Your task to perform on an android device: Add "jbl flip 4" to the cart on newegg.com Image 0: 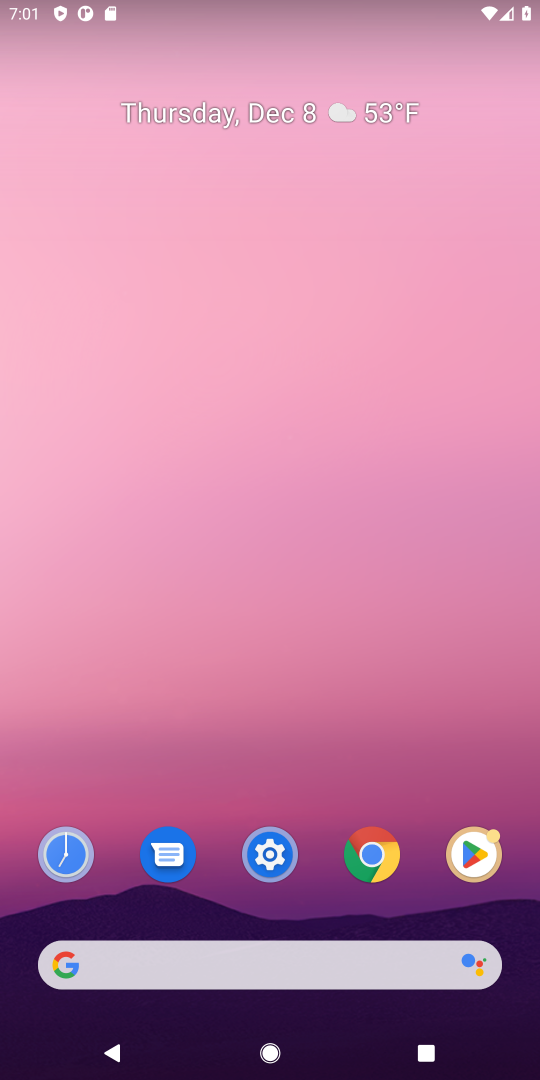
Step 0: press home button
Your task to perform on an android device: Add "jbl flip 4" to the cart on newegg.com Image 1: 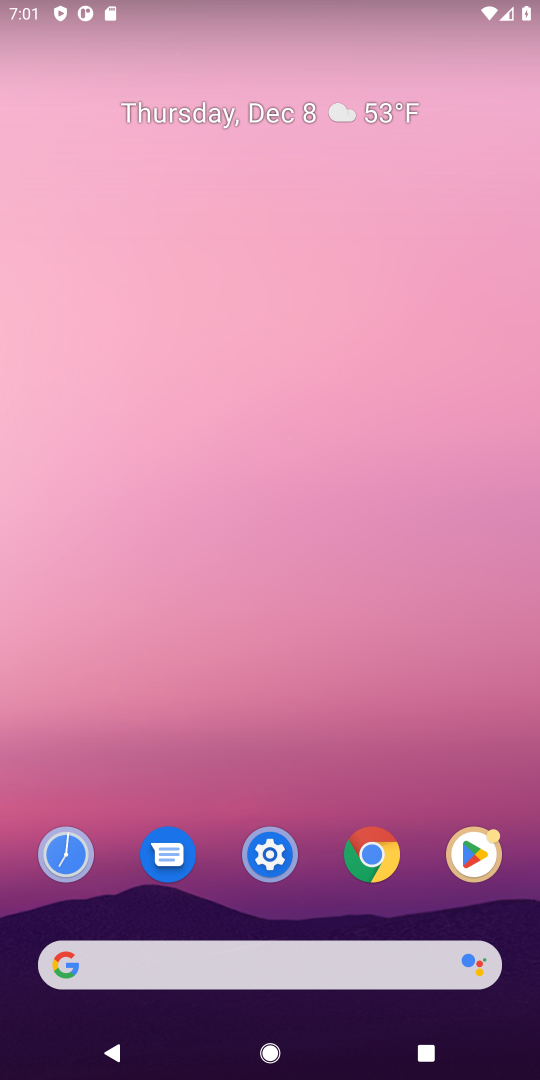
Step 1: click (98, 965)
Your task to perform on an android device: Add "jbl flip 4" to the cart on newegg.com Image 2: 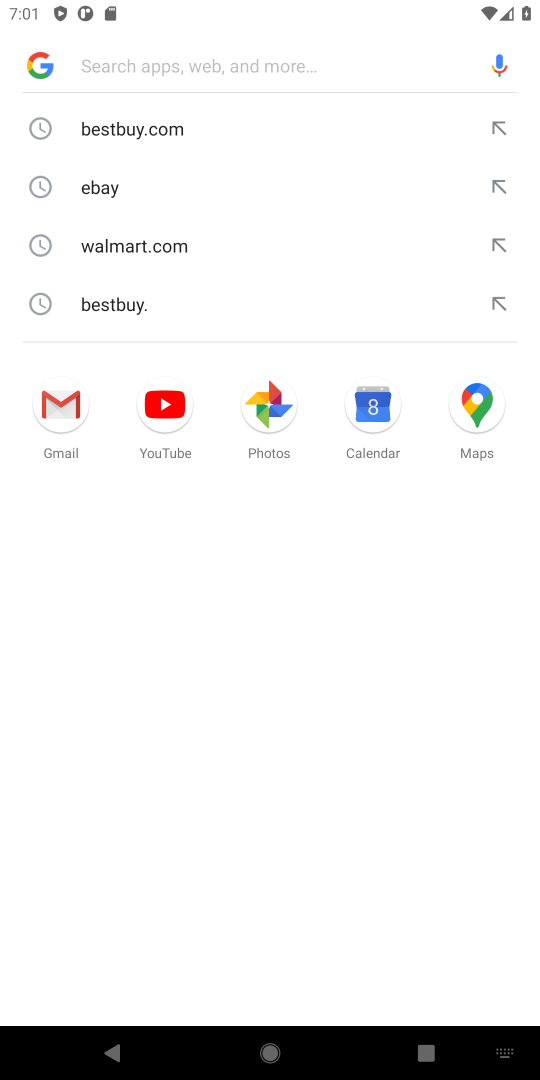
Step 2: type "newegg.com"
Your task to perform on an android device: Add "jbl flip 4" to the cart on newegg.com Image 3: 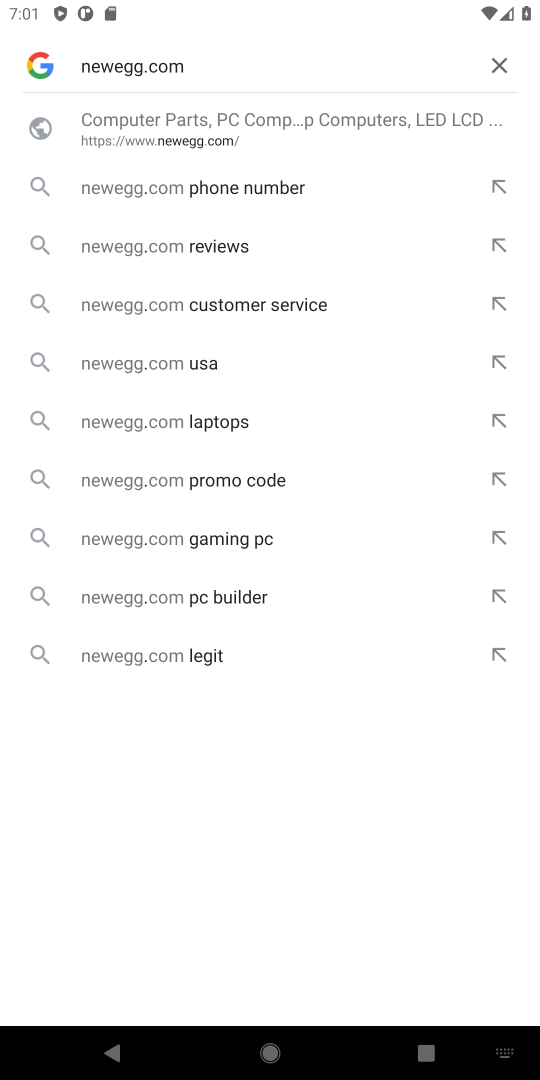
Step 3: press enter
Your task to perform on an android device: Add "jbl flip 4" to the cart on newegg.com Image 4: 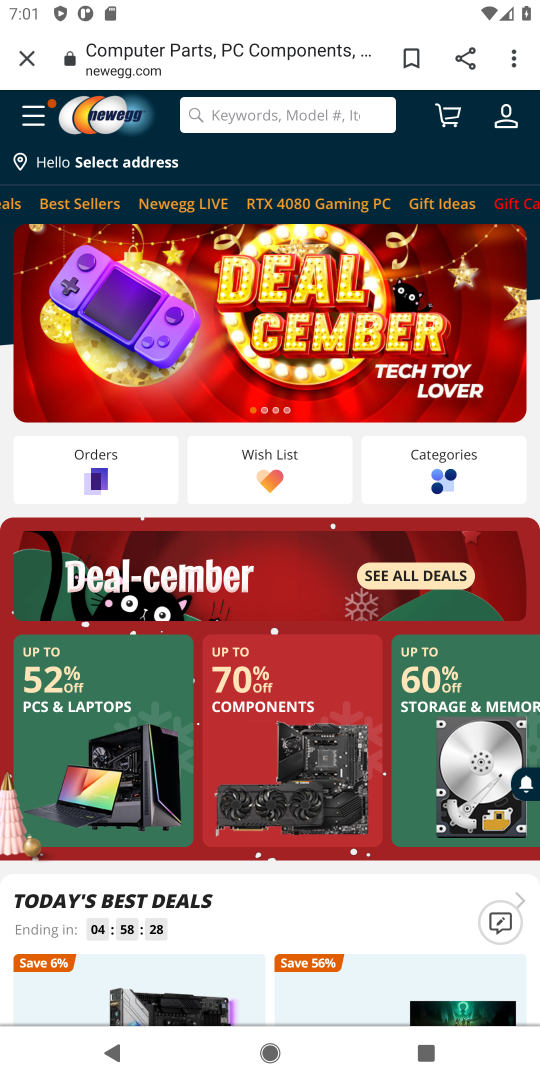
Step 4: click (218, 119)
Your task to perform on an android device: Add "jbl flip 4" to the cart on newegg.com Image 5: 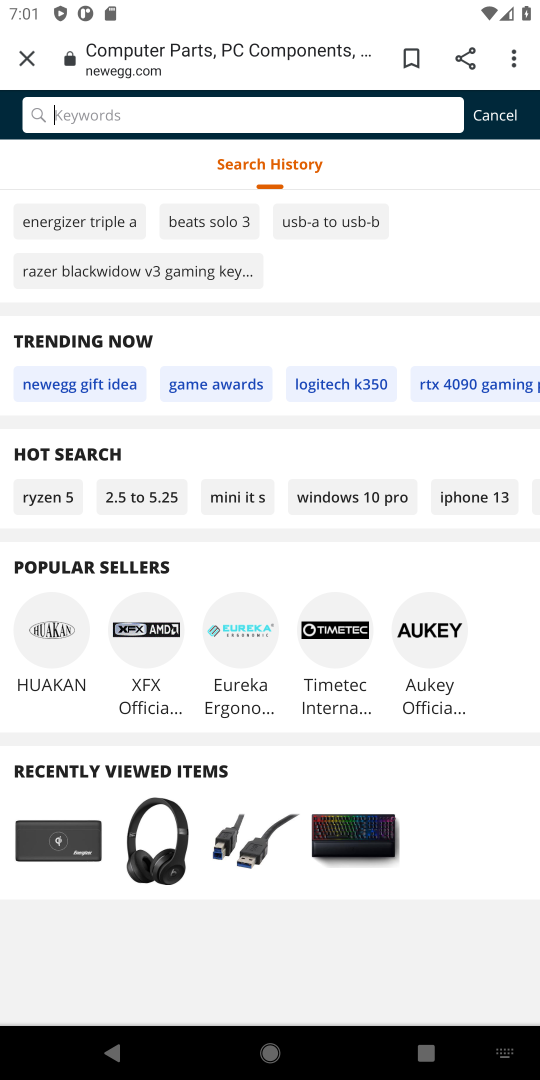
Step 5: type "jbl flip 4"
Your task to perform on an android device: Add "jbl flip 4" to the cart on newegg.com Image 6: 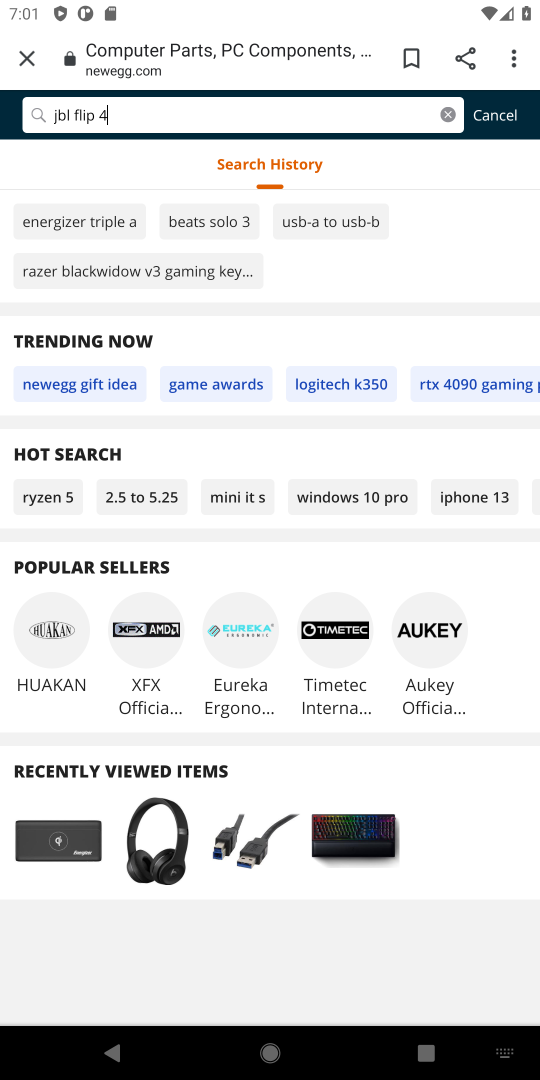
Step 6: press enter
Your task to perform on an android device: Add "jbl flip 4" to the cart on newegg.com Image 7: 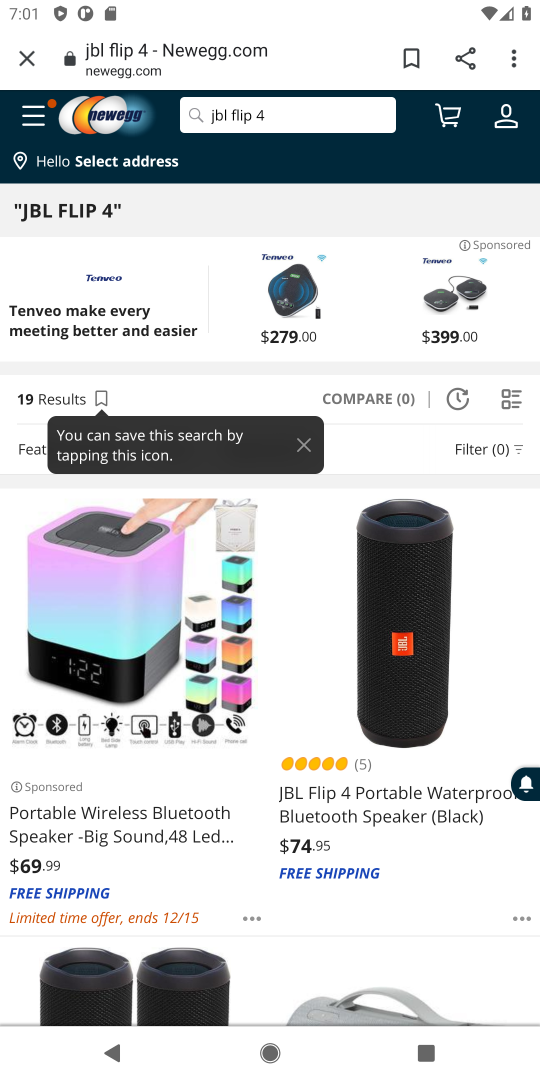
Step 7: click (347, 796)
Your task to perform on an android device: Add "jbl flip 4" to the cart on newegg.com Image 8: 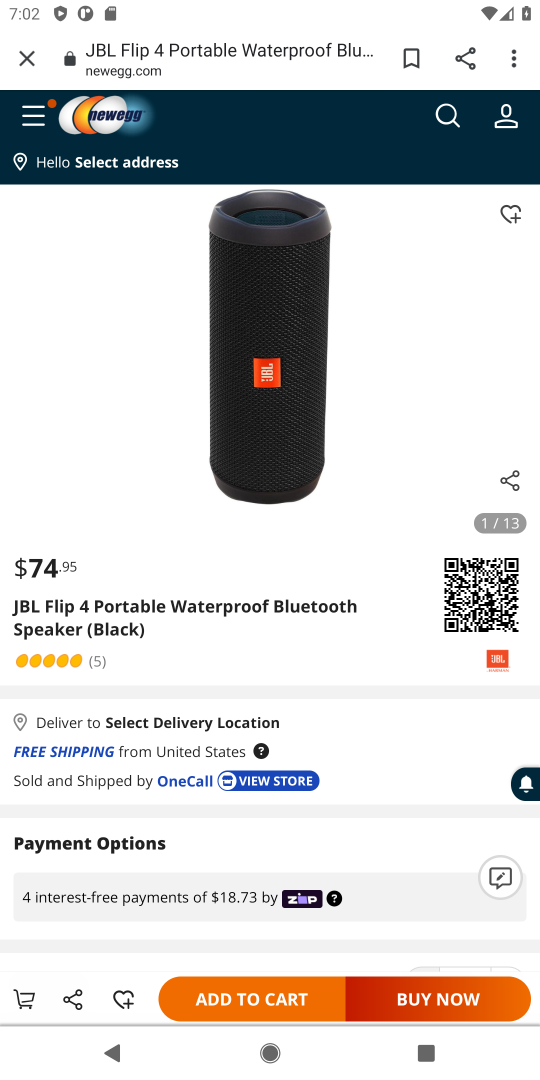
Step 8: click (231, 1002)
Your task to perform on an android device: Add "jbl flip 4" to the cart on newegg.com Image 9: 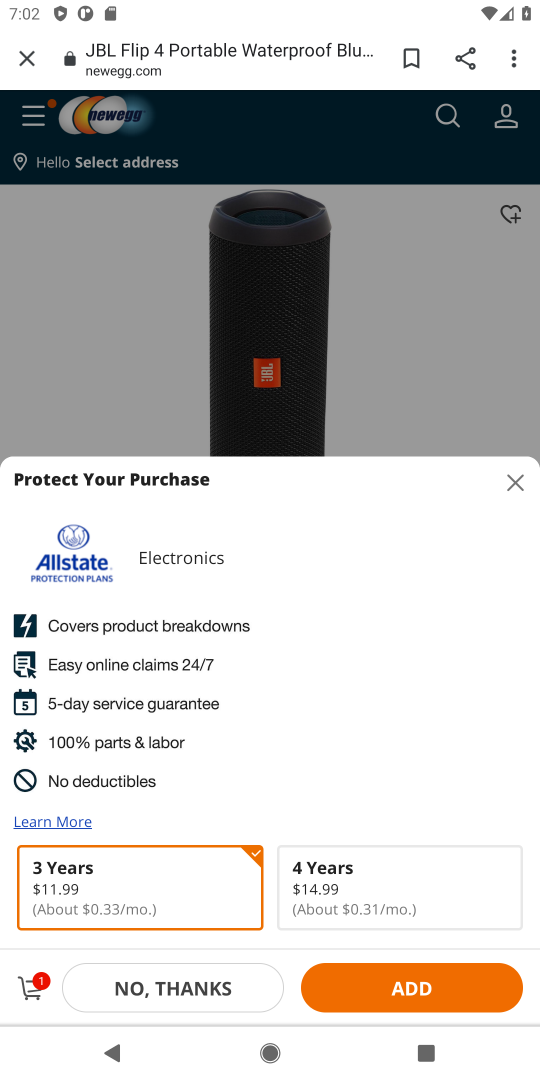
Step 9: task complete